Your task to perform on an android device: Search for flights from NYC to Paris Image 0: 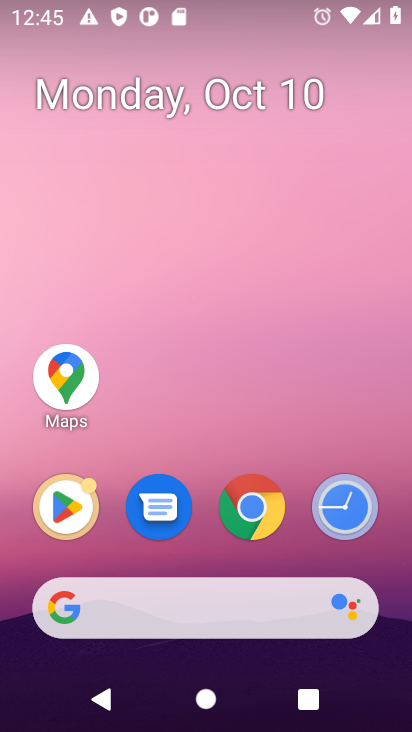
Step 0: press home button
Your task to perform on an android device: Search for flights from NYC to Paris Image 1: 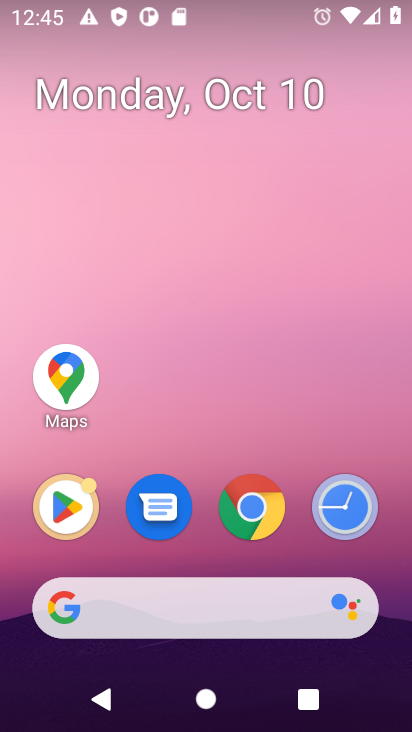
Step 1: click (214, 601)
Your task to perform on an android device: Search for flights from NYC to Paris Image 2: 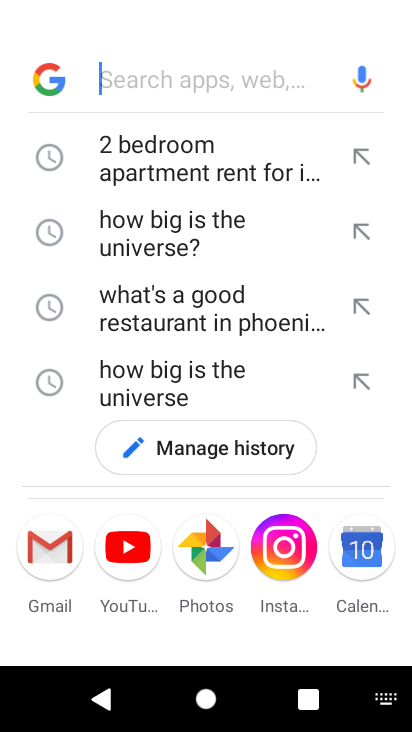
Step 2: type "flights from NYC to Paris"
Your task to perform on an android device: Search for flights from NYC to Paris Image 3: 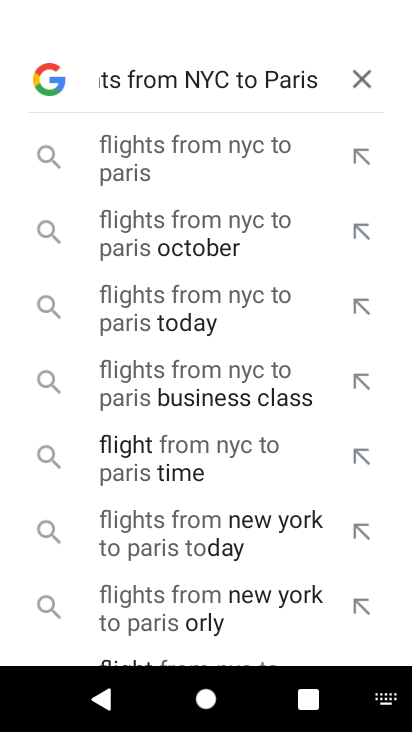
Step 3: press enter
Your task to perform on an android device: Search for flights from NYC to Paris Image 4: 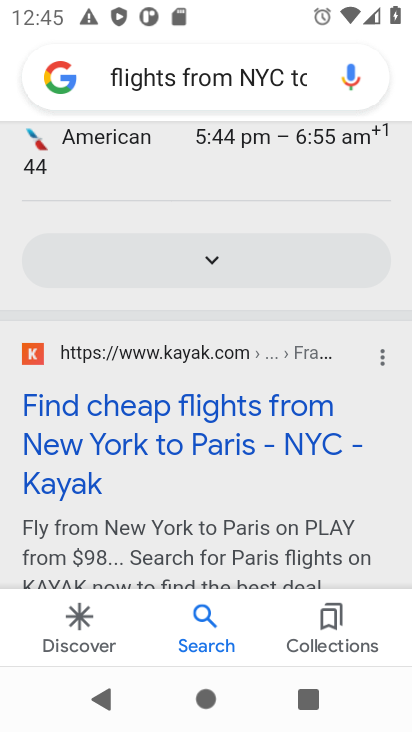
Step 4: click (209, 261)
Your task to perform on an android device: Search for flights from NYC to Paris Image 5: 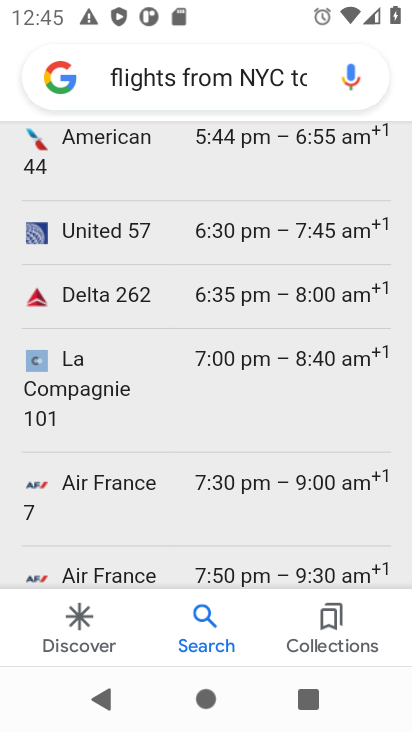
Step 5: task complete